Your task to perform on an android device: toggle notification dots Image 0: 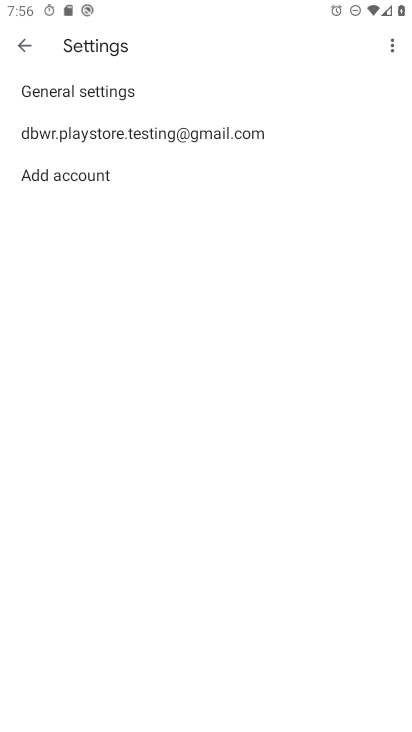
Step 0: press home button
Your task to perform on an android device: toggle notification dots Image 1: 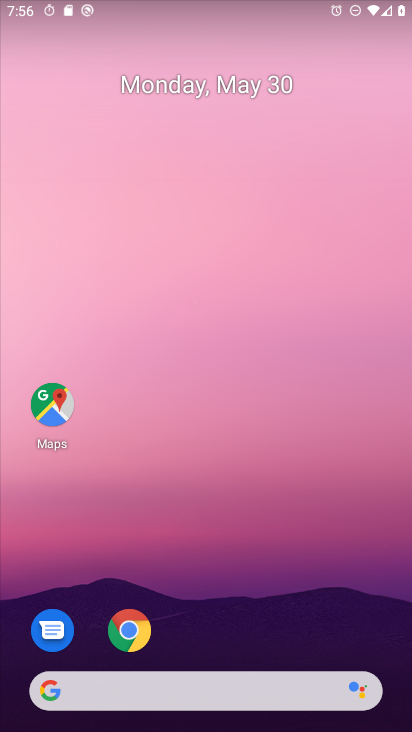
Step 1: drag from (364, 617) to (289, 22)
Your task to perform on an android device: toggle notification dots Image 2: 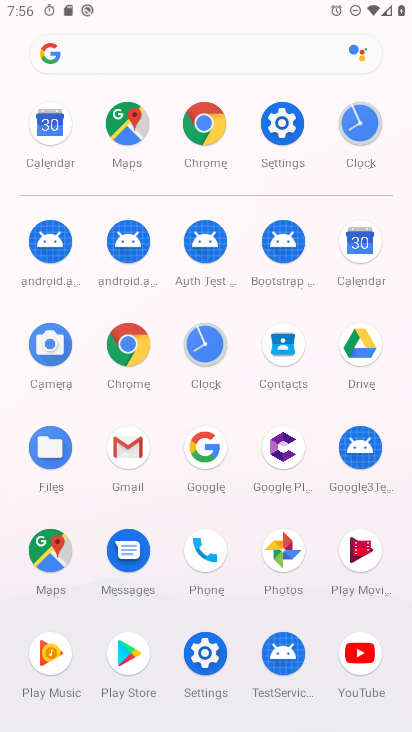
Step 2: click (283, 139)
Your task to perform on an android device: toggle notification dots Image 3: 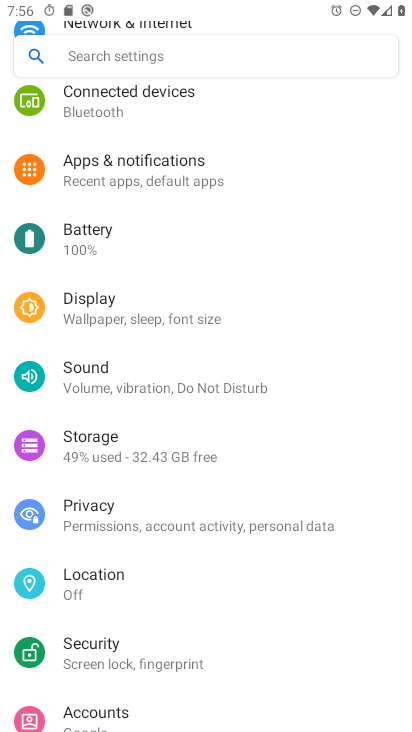
Step 3: click (245, 164)
Your task to perform on an android device: toggle notification dots Image 4: 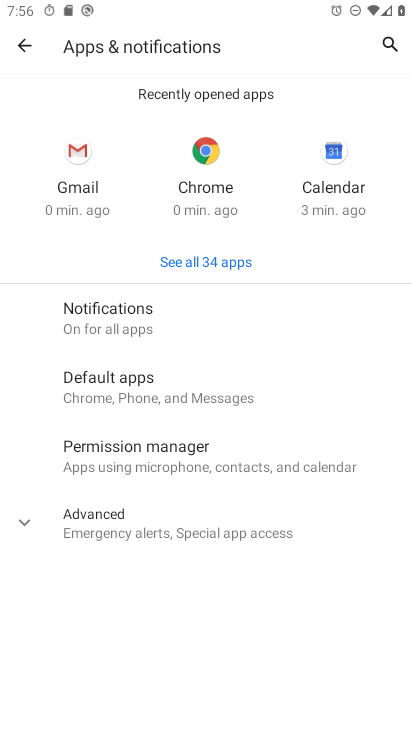
Step 4: click (143, 320)
Your task to perform on an android device: toggle notification dots Image 5: 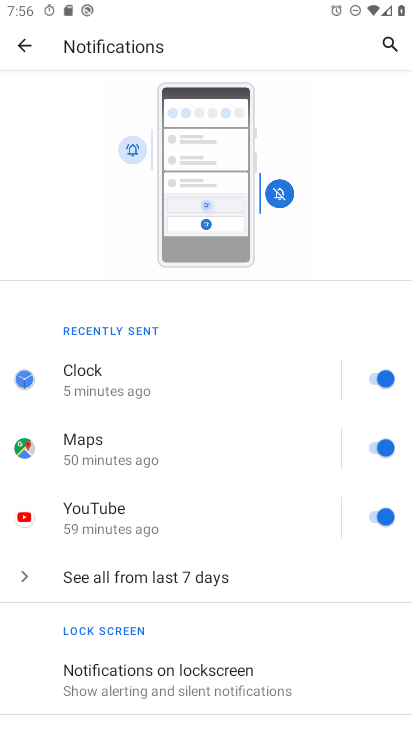
Step 5: drag from (178, 707) to (187, 357)
Your task to perform on an android device: toggle notification dots Image 6: 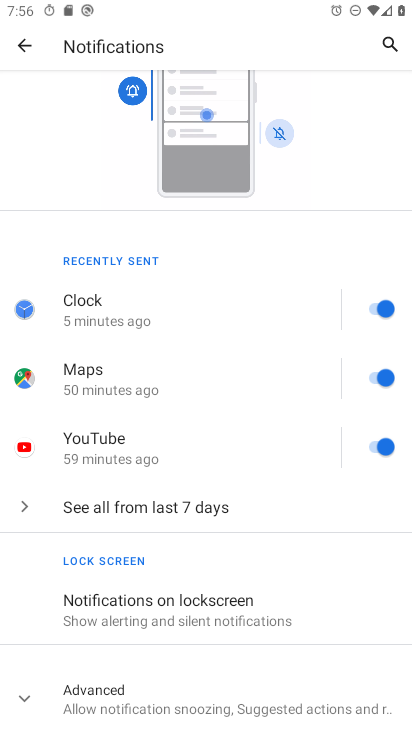
Step 6: click (111, 692)
Your task to perform on an android device: toggle notification dots Image 7: 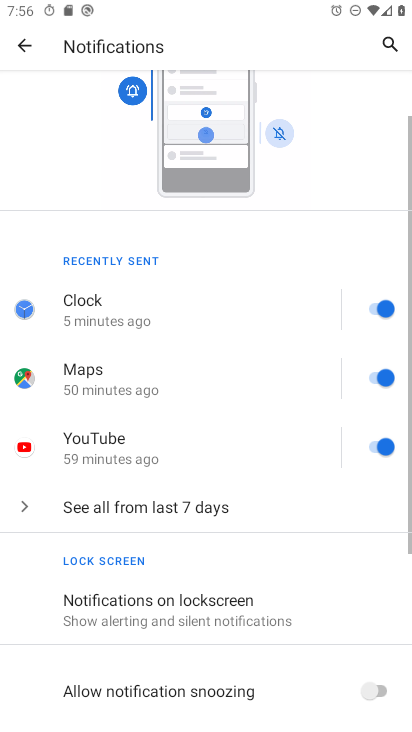
Step 7: drag from (111, 692) to (160, 345)
Your task to perform on an android device: toggle notification dots Image 8: 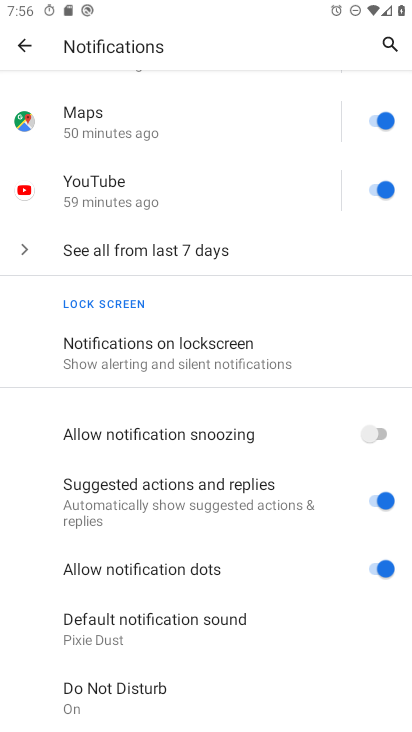
Step 8: click (345, 562)
Your task to perform on an android device: toggle notification dots Image 9: 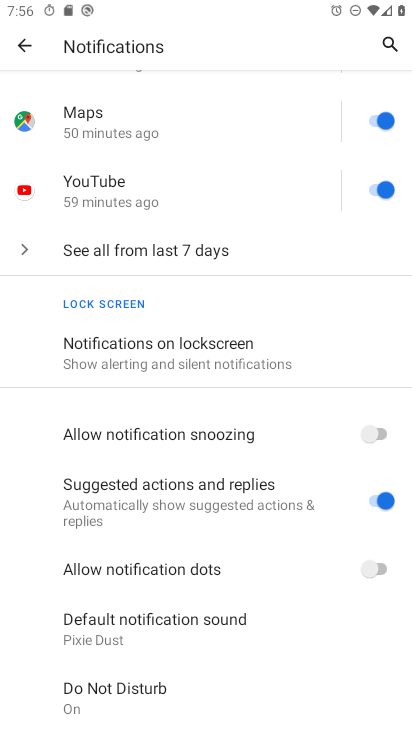
Step 9: task complete